Your task to perform on an android device: Open the map Image 0: 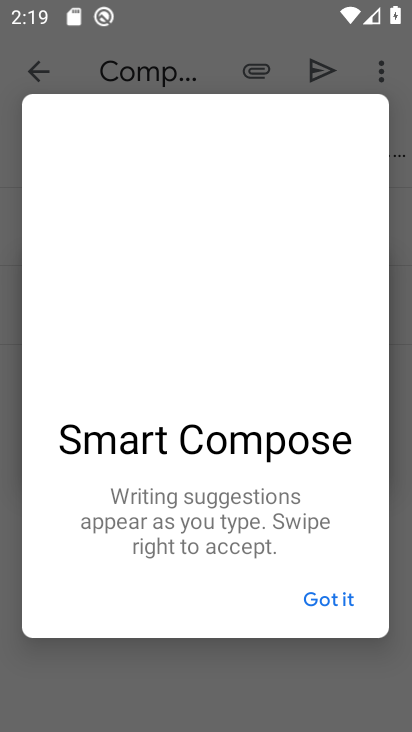
Step 0: press home button
Your task to perform on an android device: Open the map Image 1: 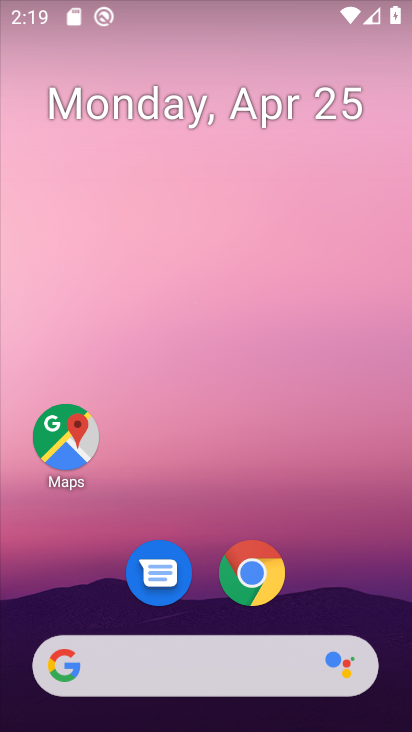
Step 1: drag from (365, 603) to (326, 108)
Your task to perform on an android device: Open the map Image 2: 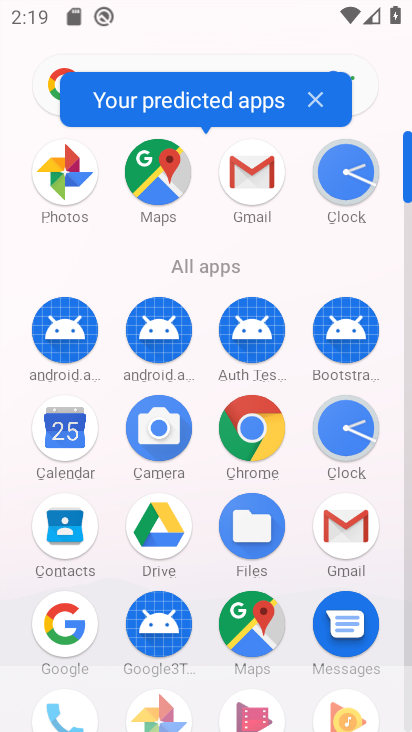
Step 2: click (157, 180)
Your task to perform on an android device: Open the map Image 3: 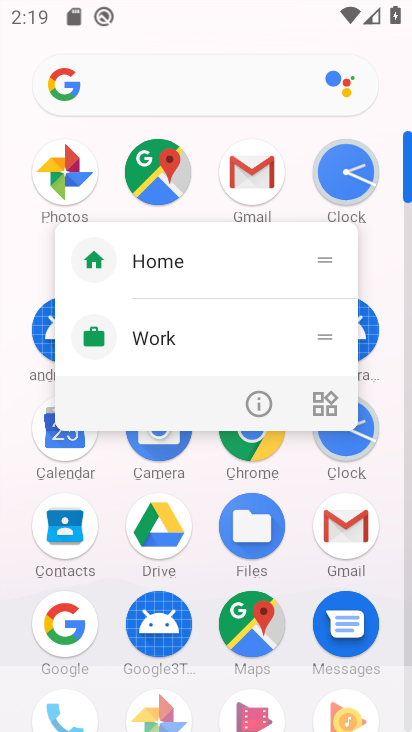
Step 3: click (157, 182)
Your task to perform on an android device: Open the map Image 4: 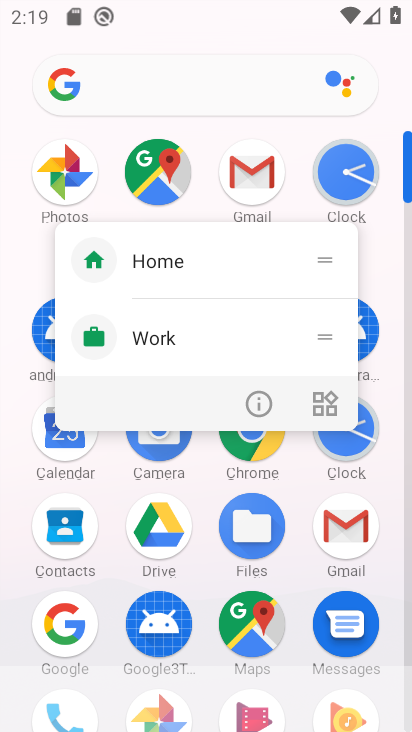
Step 4: click (157, 182)
Your task to perform on an android device: Open the map Image 5: 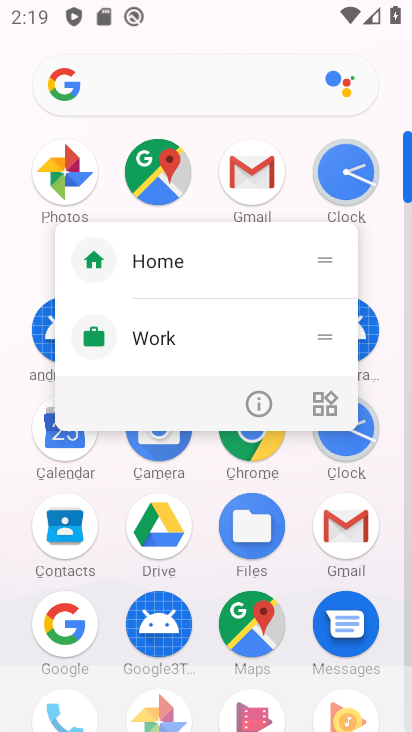
Step 5: click (157, 182)
Your task to perform on an android device: Open the map Image 6: 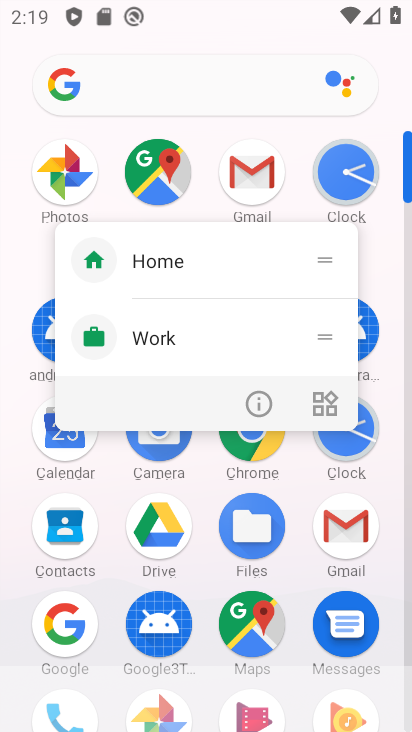
Step 6: click (157, 182)
Your task to perform on an android device: Open the map Image 7: 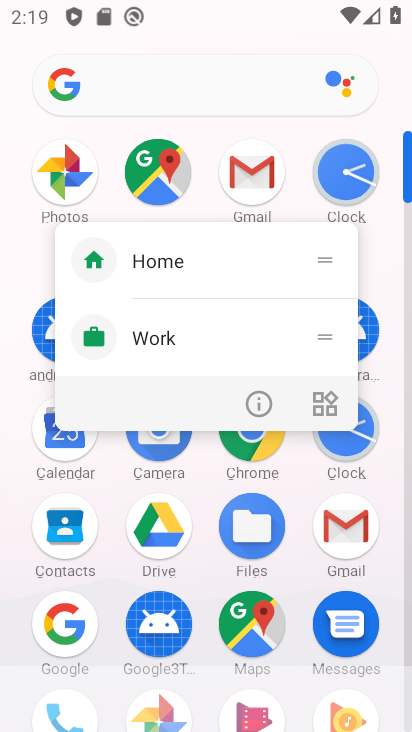
Step 7: click (157, 182)
Your task to perform on an android device: Open the map Image 8: 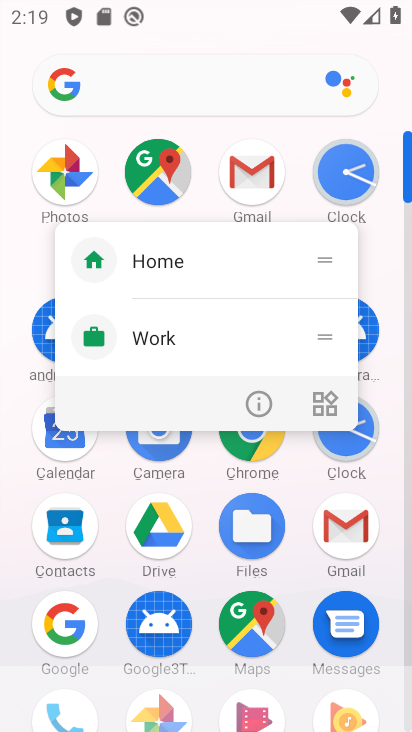
Step 8: click (157, 182)
Your task to perform on an android device: Open the map Image 9: 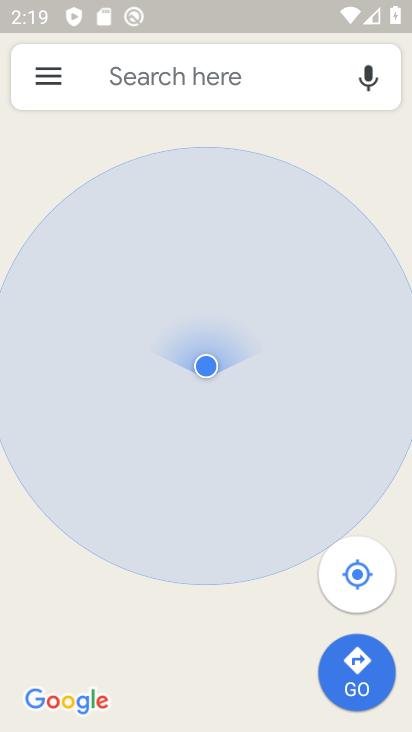
Step 9: task complete